Your task to perform on an android device: allow cookies in the chrome app Image 0: 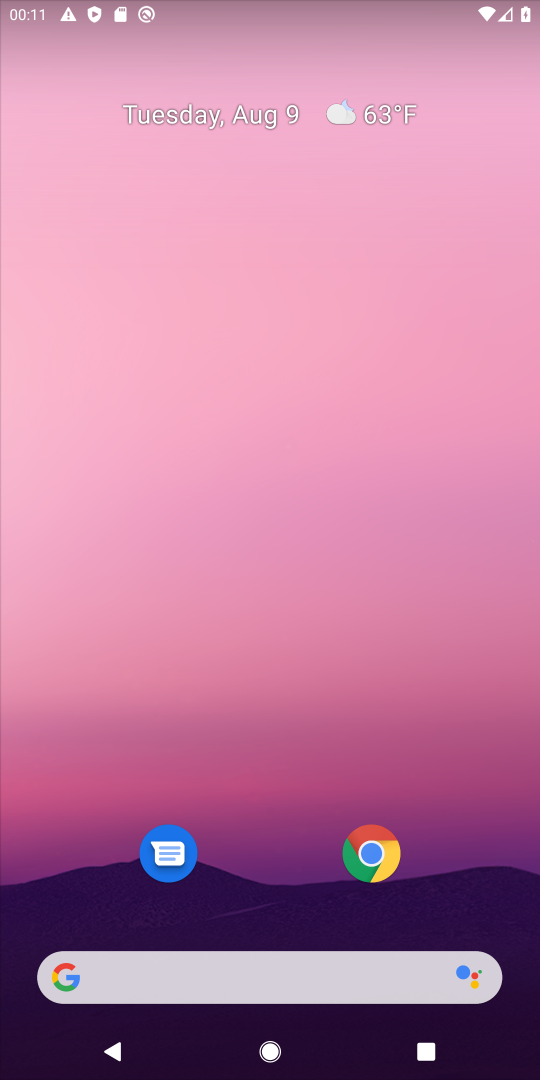
Step 0: click (385, 836)
Your task to perform on an android device: allow cookies in the chrome app Image 1: 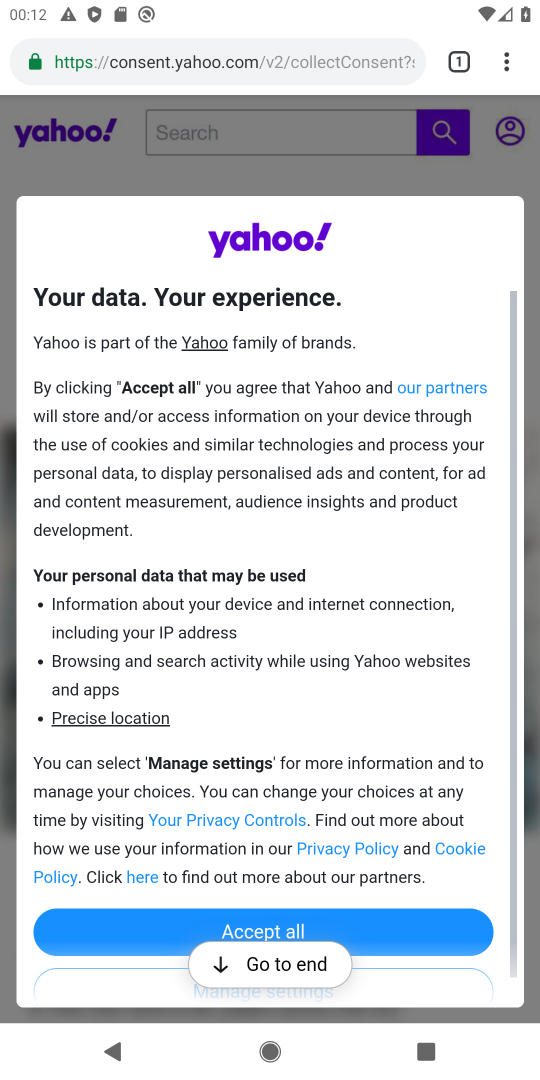
Step 1: click (495, 60)
Your task to perform on an android device: allow cookies in the chrome app Image 2: 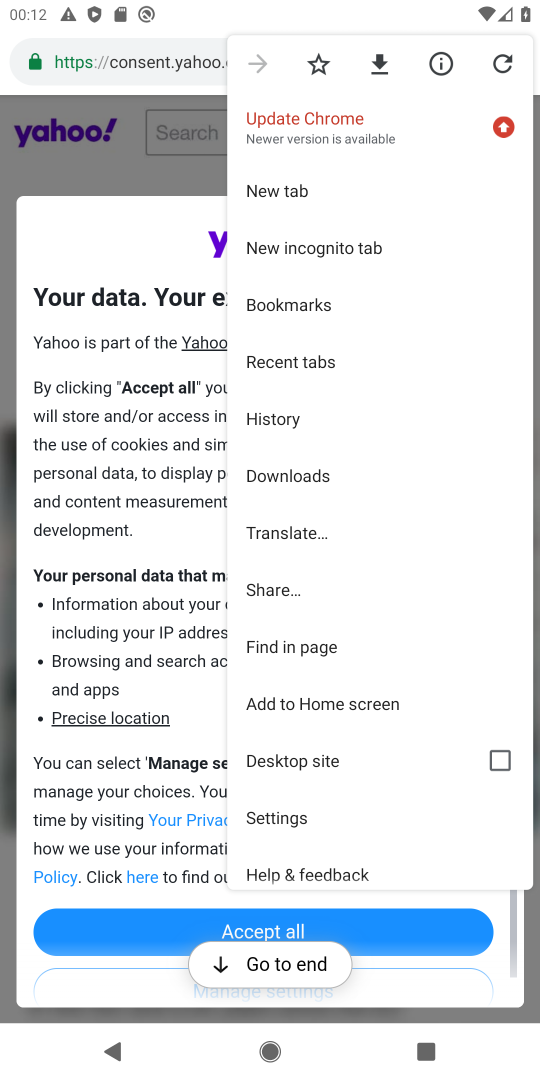
Step 2: click (308, 800)
Your task to perform on an android device: allow cookies in the chrome app Image 3: 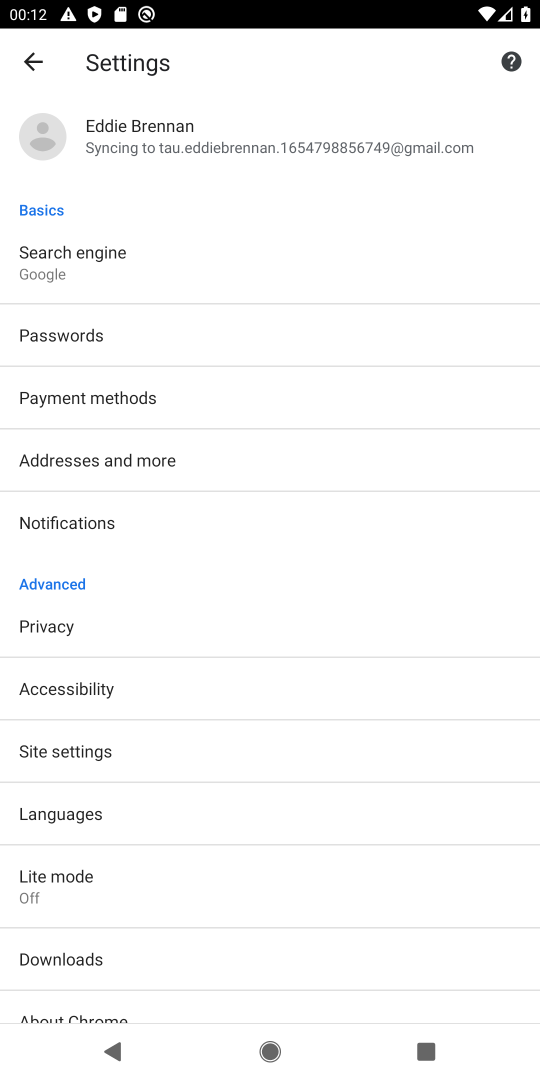
Step 3: click (114, 744)
Your task to perform on an android device: allow cookies in the chrome app Image 4: 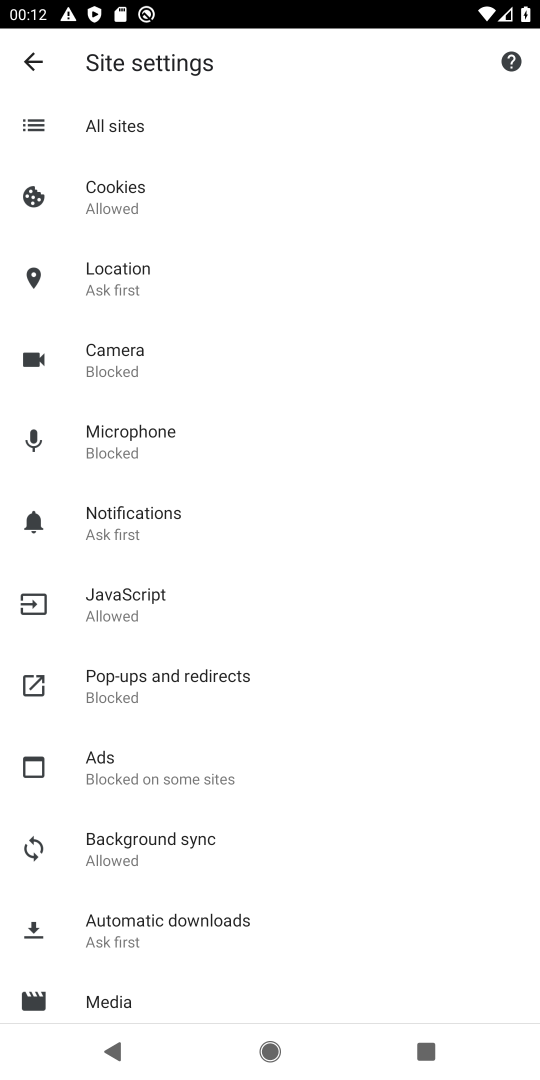
Step 4: click (134, 213)
Your task to perform on an android device: allow cookies in the chrome app Image 5: 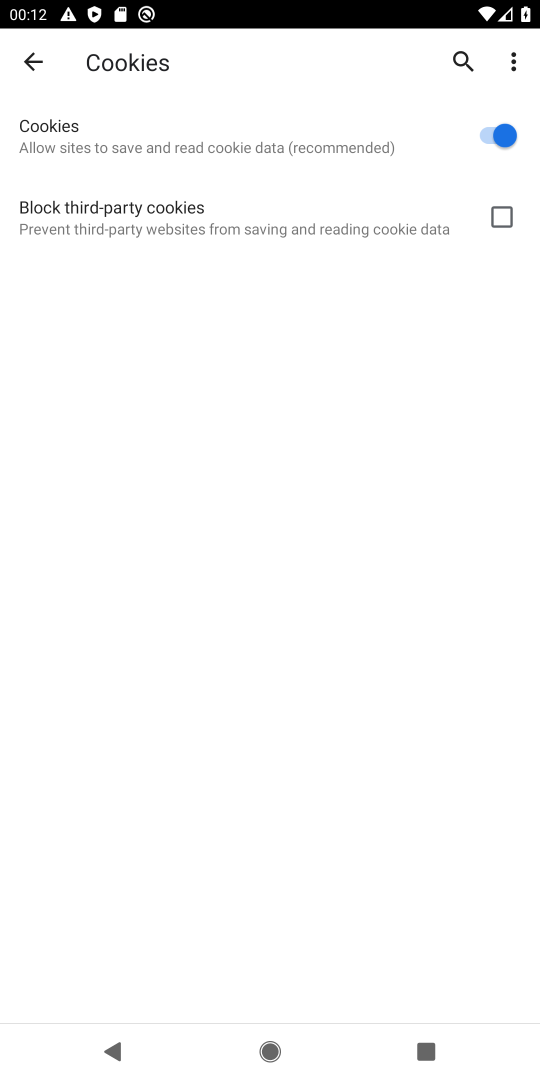
Step 5: task complete